Your task to perform on an android device: install app "Google Find My Device" Image 0: 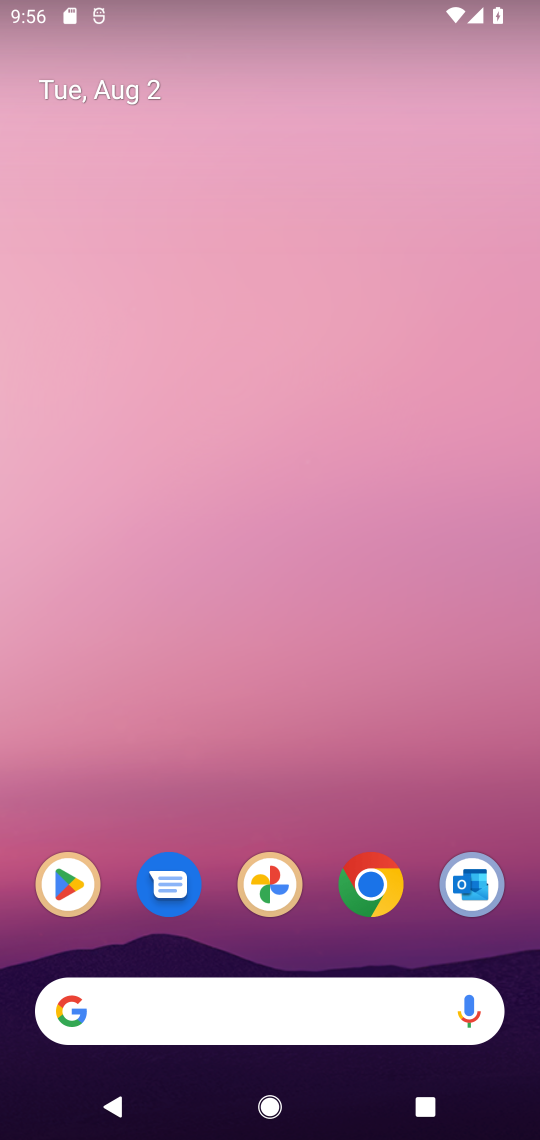
Step 0: click (81, 887)
Your task to perform on an android device: install app "Google Find My Device" Image 1: 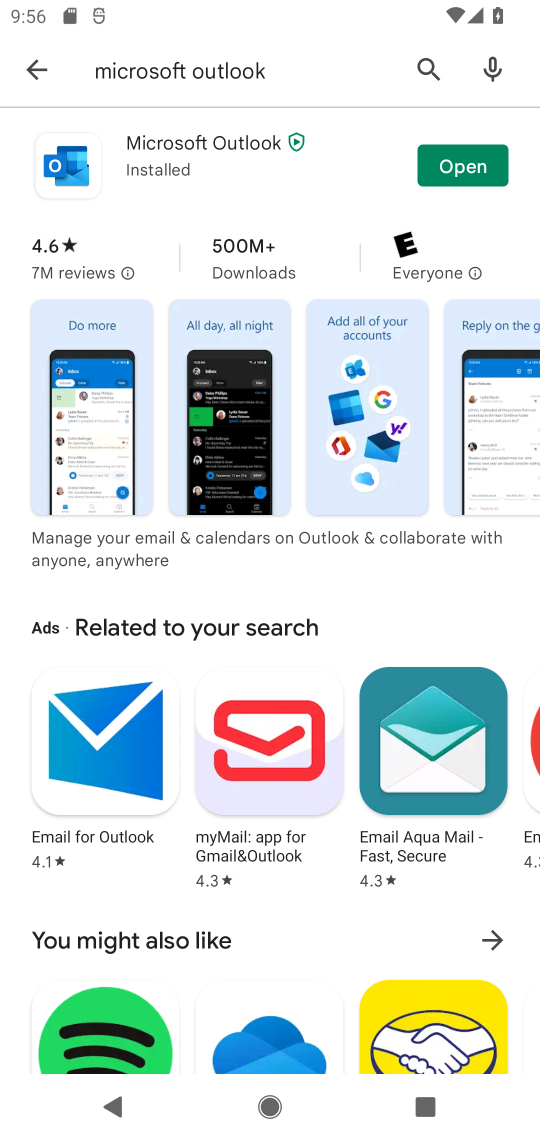
Step 1: click (241, 87)
Your task to perform on an android device: install app "Google Find My Device" Image 2: 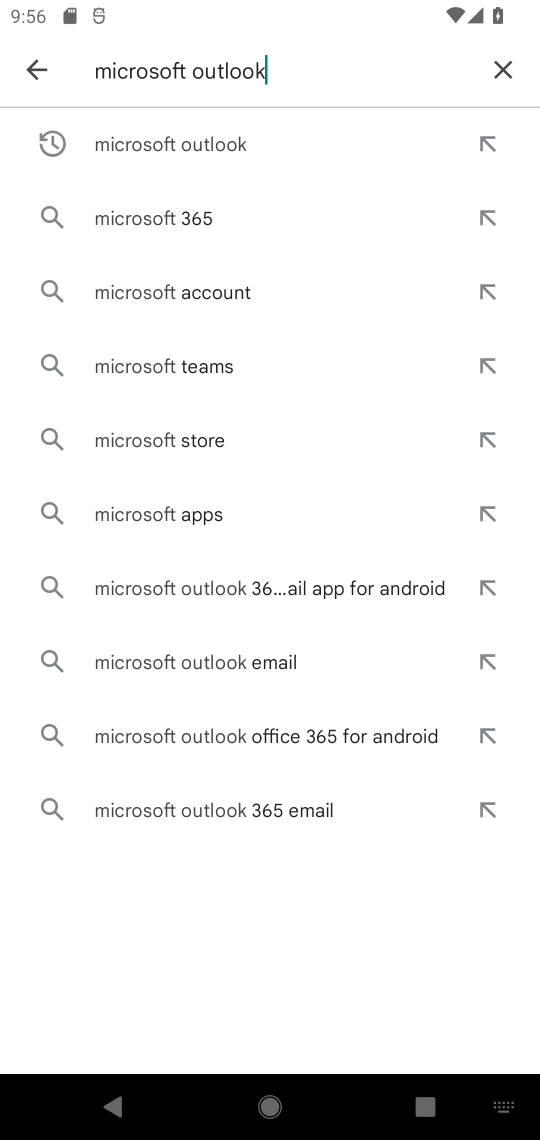
Step 2: click (503, 72)
Your task to perform on an android device: install app "Google Find My Device" Image 3: 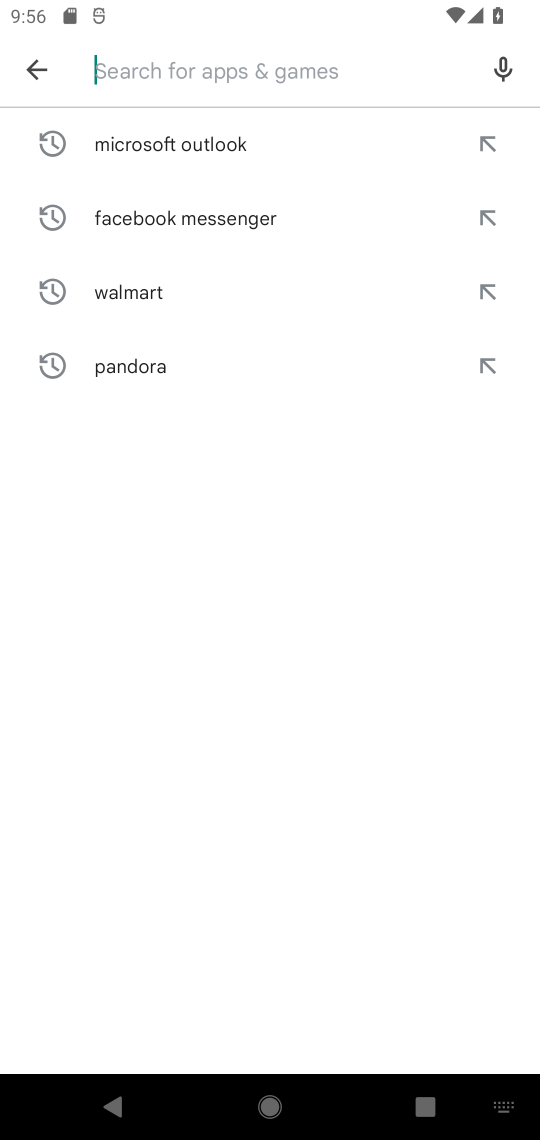
Step 3: type "google find my device"
Your task to perform on an android device: install app "Google Find My Device" Image 4: 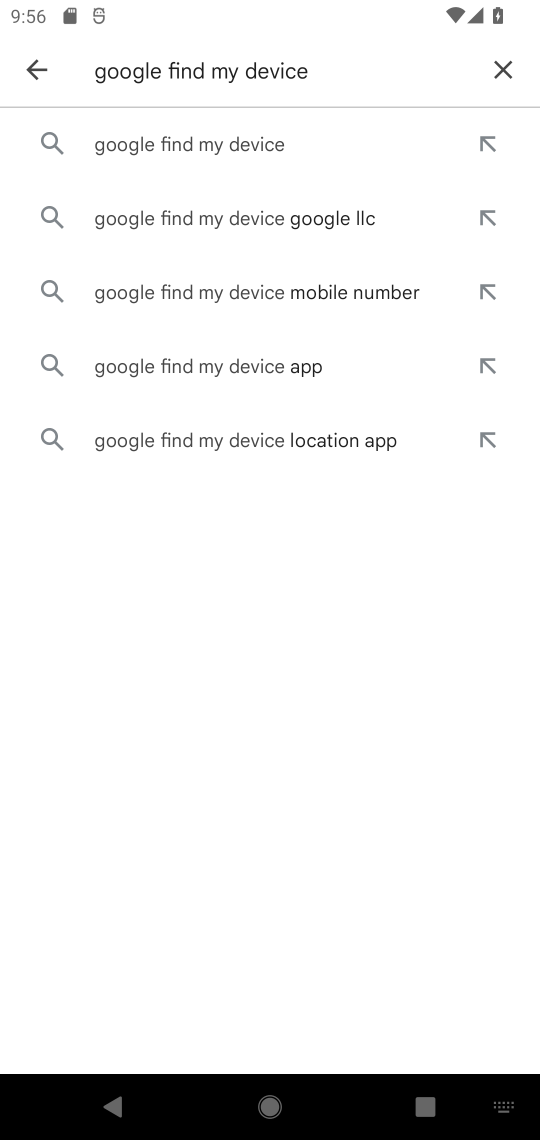
Step 4: click (156, 131)
Your task to perform on an android device: install app "Google Find My Device" Image 5: 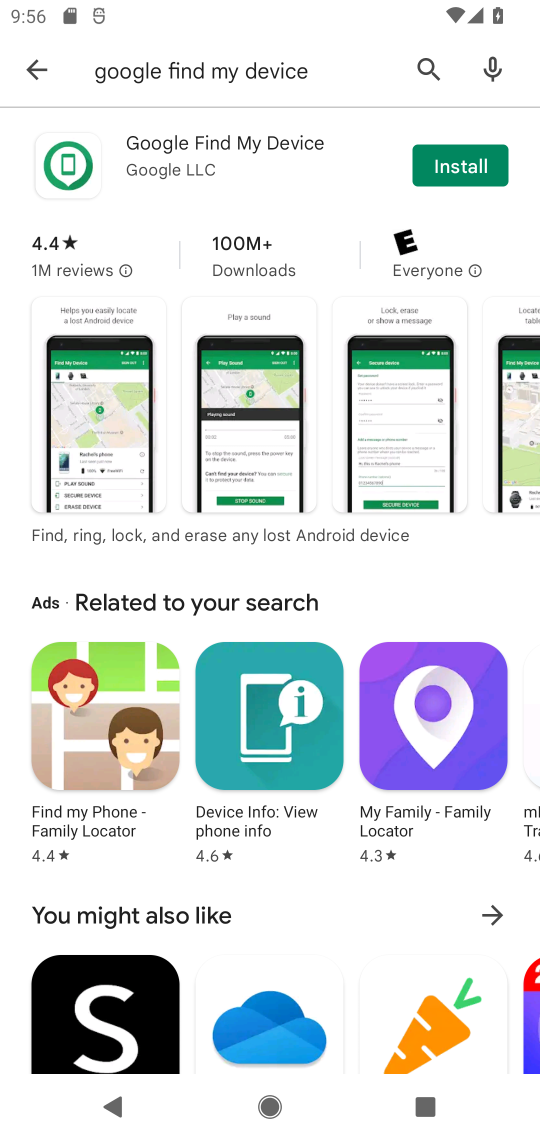
Step 5: click (486, 163)
Your task to perform on an android device: install app "Google Find My Device" Image 6: 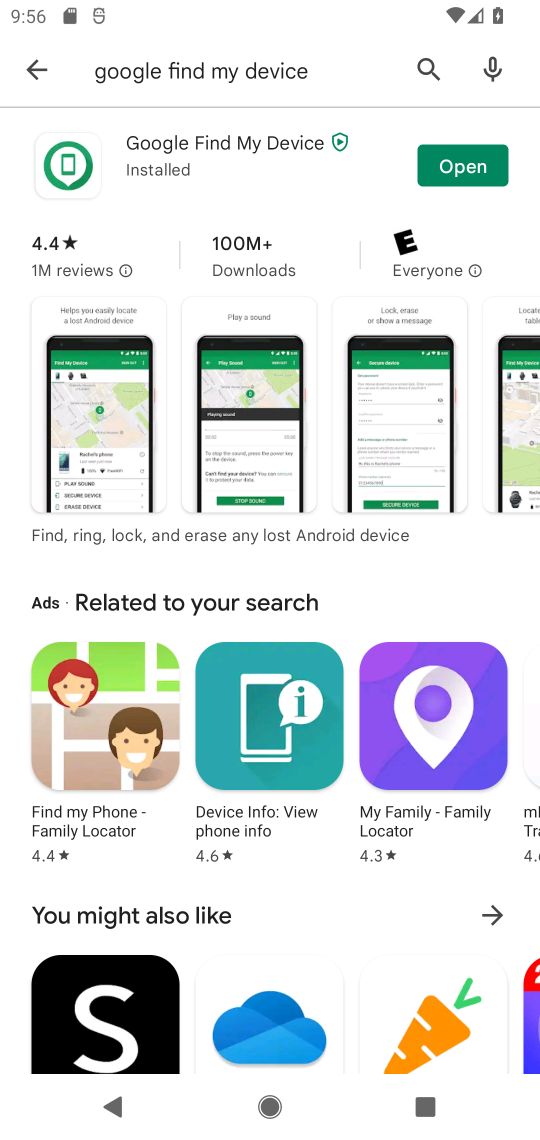
Step 6: task complete